Your task to perform on an android device: Open the web browser Image 0: 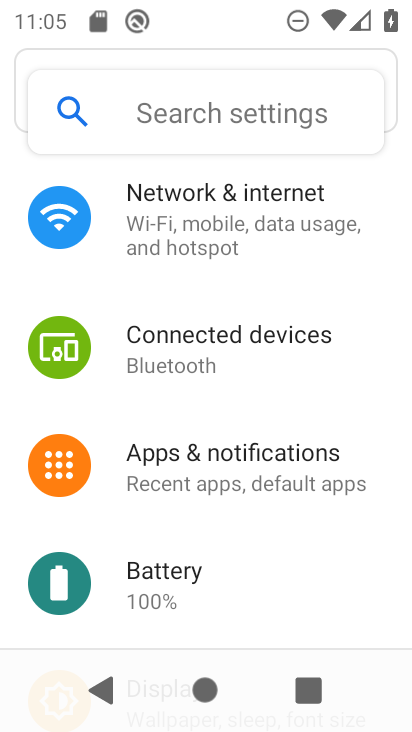
Step 0: press home button
Your task to perform on an android device: Open the web browser Image 1: 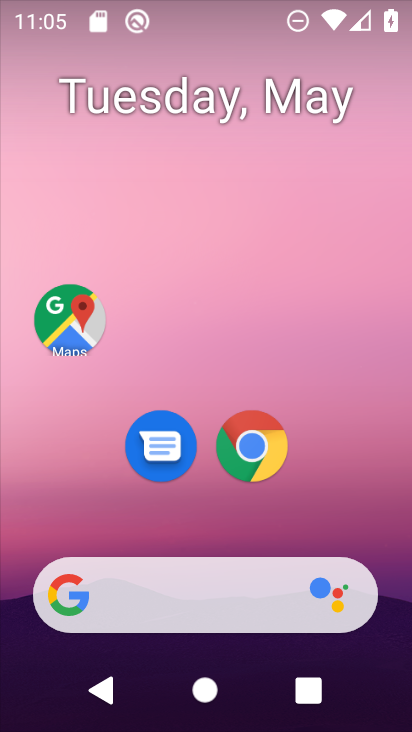
Step 1: click (256, 467)
Your task to perform on an android device: Open the web browser Image 2: 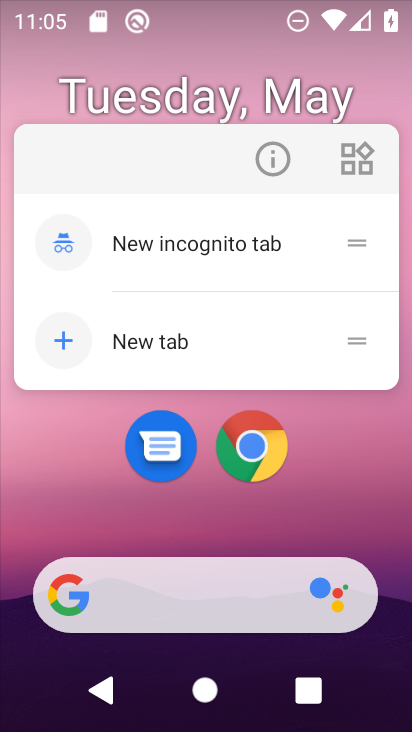
Step 2: click (256, 467)
Your task to perform on an android device: Open the web browser Image 3: 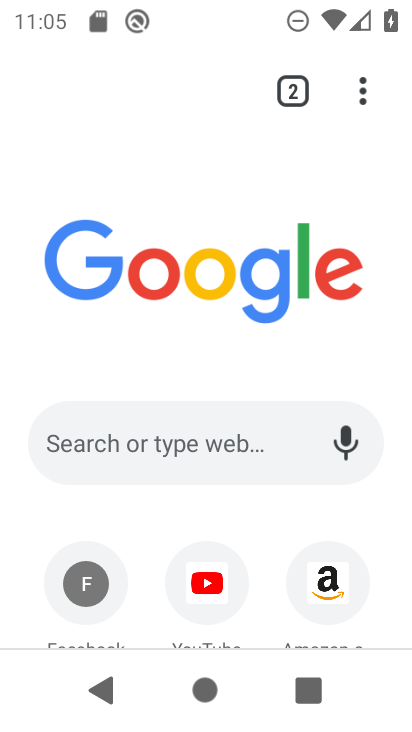
Step 3: task complete